Your task to perform on an android device: Open location settings Image 0: 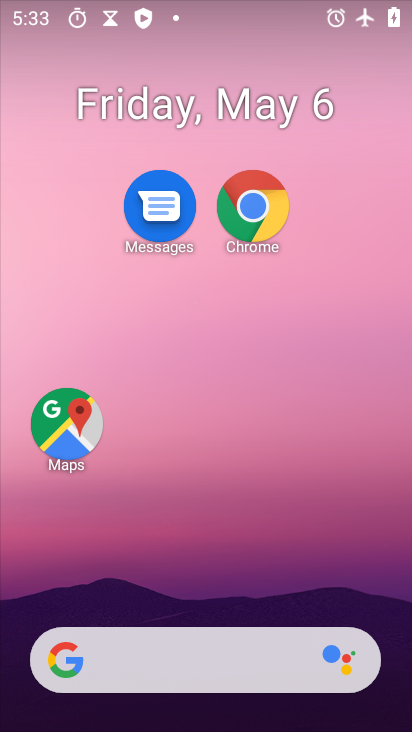
Step 0: drag from (147, 624) to (174, 293)
Your task to perform on an android device: Open location settings Image 1: 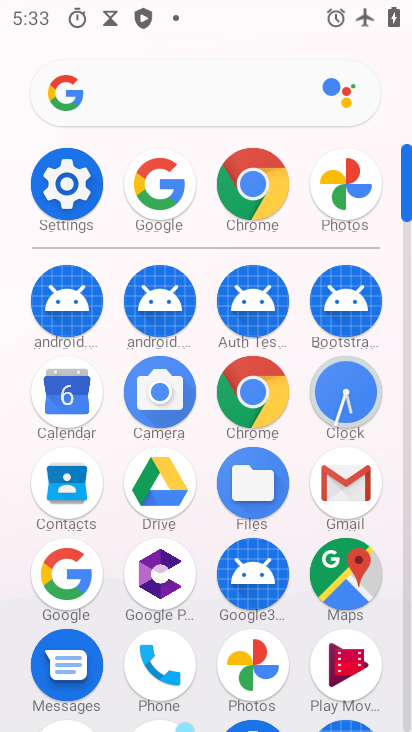
Step 1: click (48, 176)
Your task to perform on an android device: Open location settings Image 2: 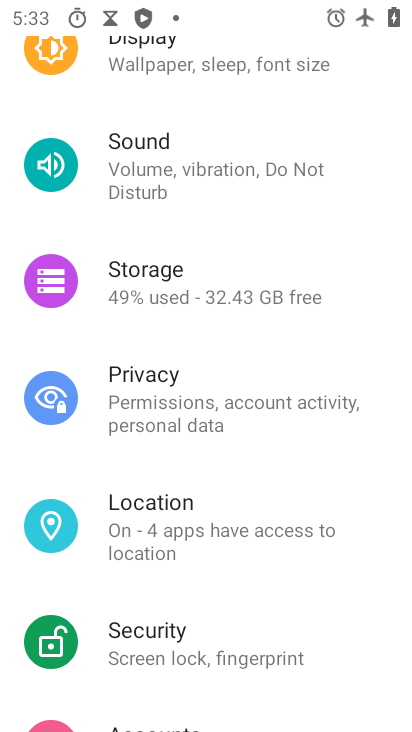
Step 2: click (162, 544)
Your task to perform on an android device: Open location settings Image 3: 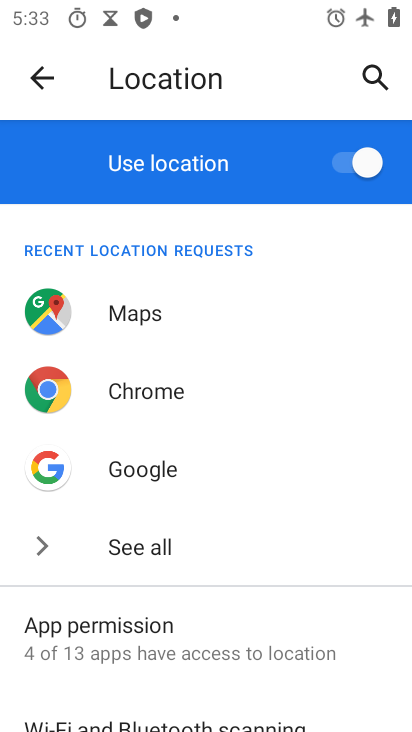
Step 3: drag from (175, 572) to (210, 314)
Your task to perform on an android device: Open location settings Image 4: 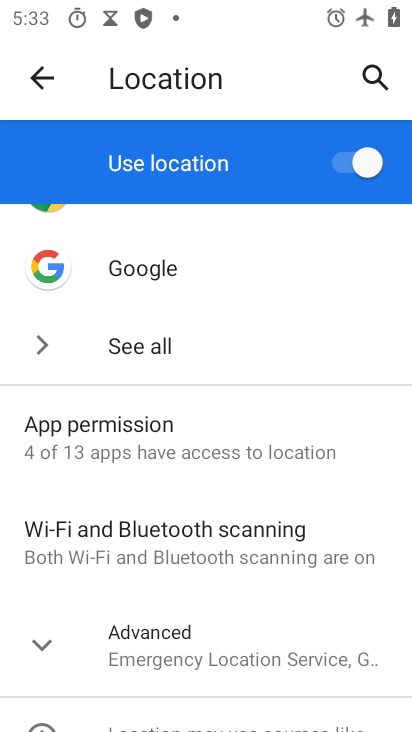
Step 4: click (202, 652)
Your task to perform on an android device: Open location settings Image 5: 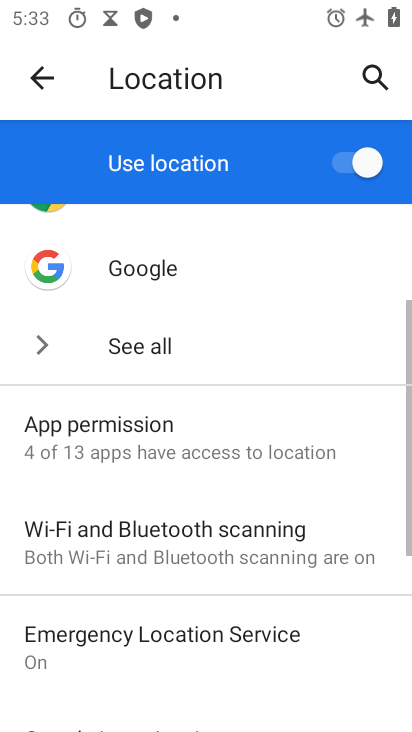
Step 5: click (205, 390)
Your task to perform on an android device: Open location settings Image 6: 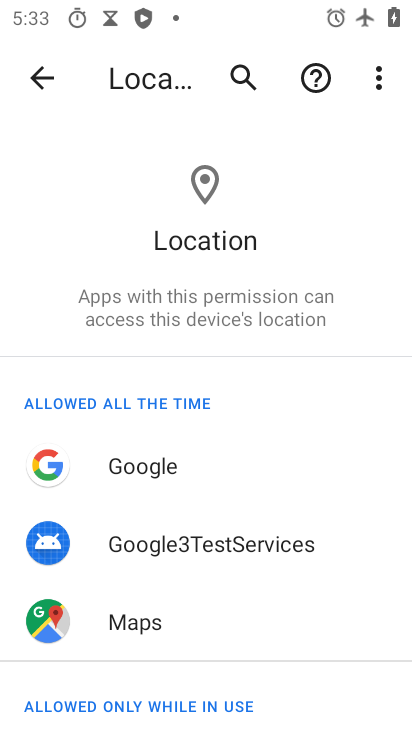
Step 6: task complete